Your task to perform on an android device: Go to settings Image 0: 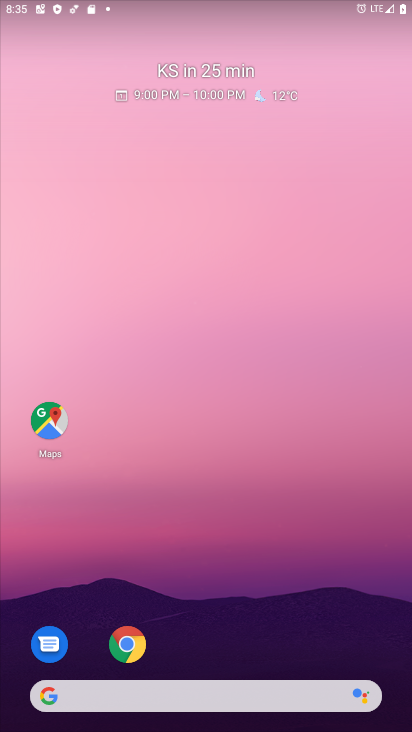
Step 0: drag from (393, 659) to (344, 95)
Your task to perform on an android device: Go to settings Image 1: 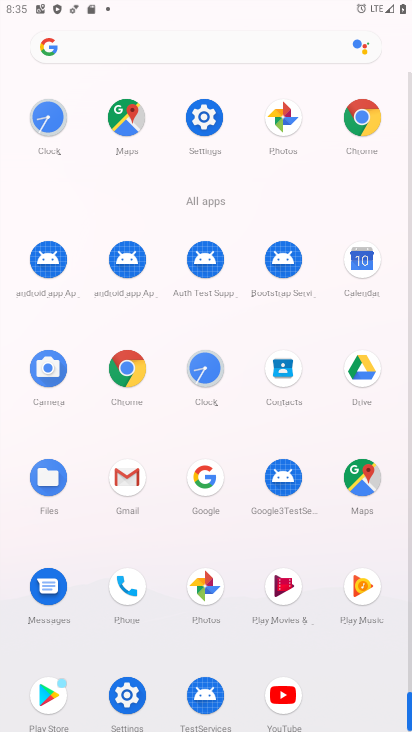
Step 1: click (129, 696)
Your task to perform on an android device: Go to settings Image 2: 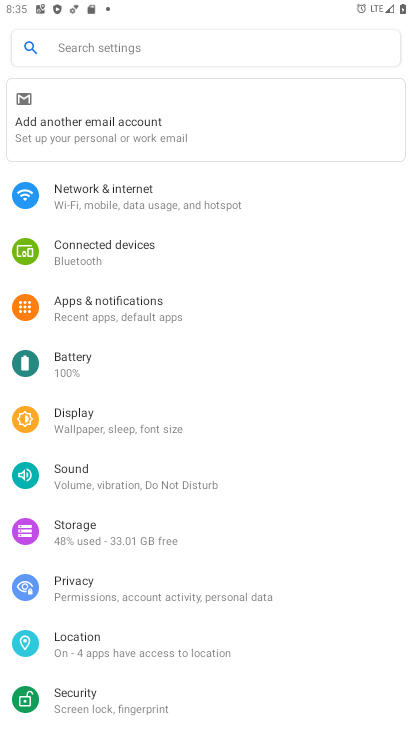
Step 2: task complete